Your task to perform on an android device: toggle priority inbox in the gmail app Image 0: 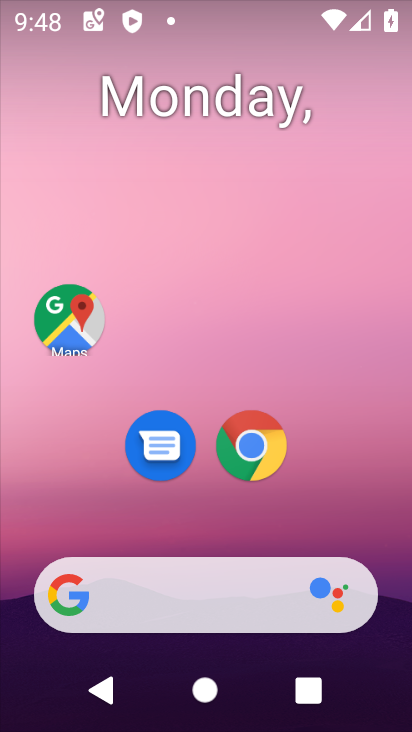
Step 0: drag from (74, 553) to (198, 148)
Your task to perform on an android device: toggle priority inbox in the gmail app Image 1: 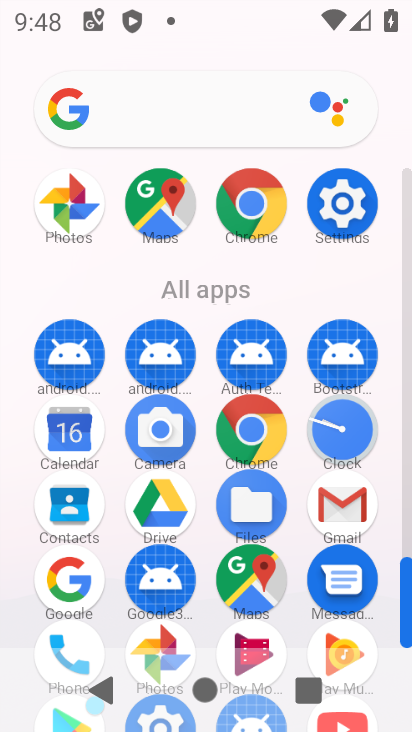
Step 1: drag from (195, 699) to (256, 431)
Your task to perform on an android device: toggle priority inbox in the gmail app Image 2: 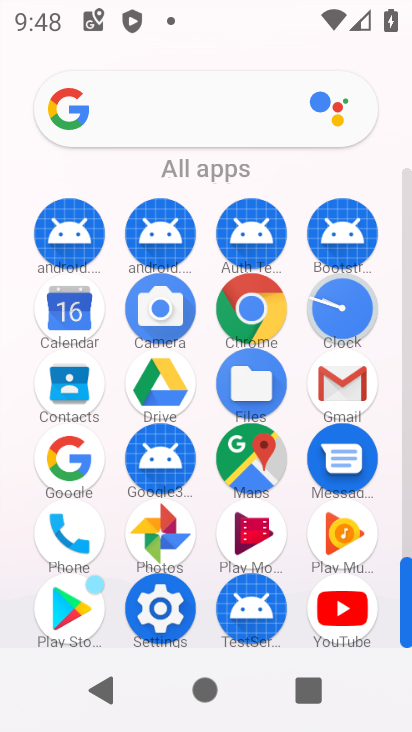
Step 2: click (349, 393)
Your task to perform on an android device: toggle priority inbox in the gmail app Image 3: 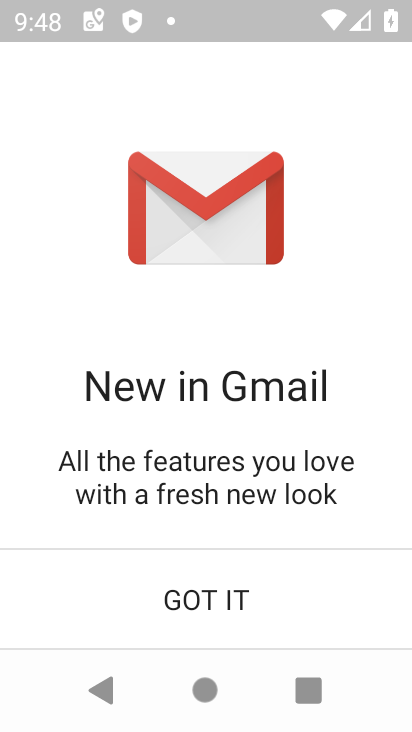
Step 3: click (253, 616)
Your task to perform on an android device: toggle priority inbox in the gmail app Image 4: 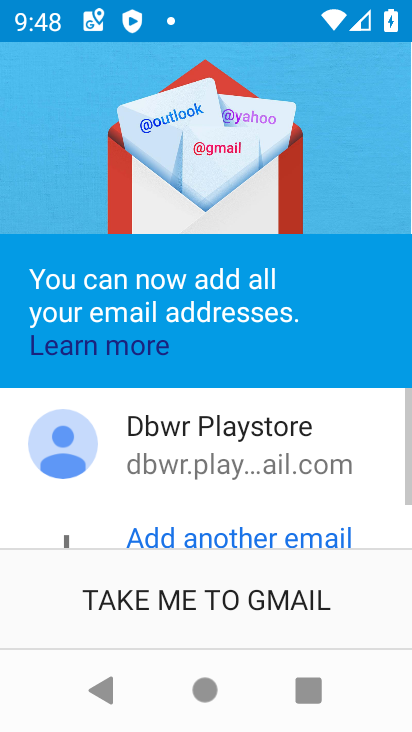
Step 4: click (253, 616)
Your task to perform on an android device: toggle priority inbox in the gmail app Image 5: 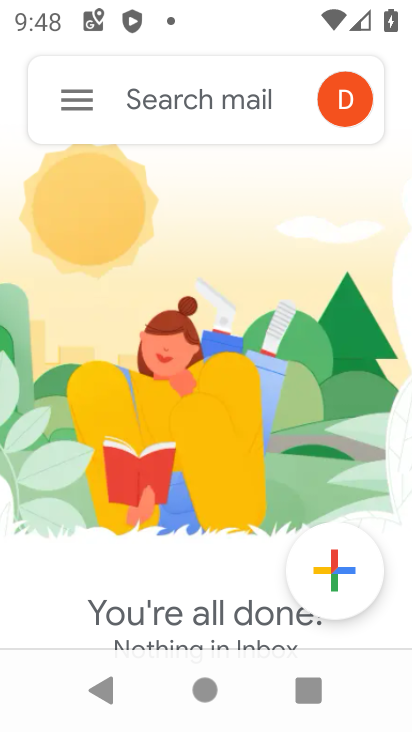
Step 5: click (82, 94)
Your task to perform on an android device: toggle priority inbox in the gmail app Image 6: 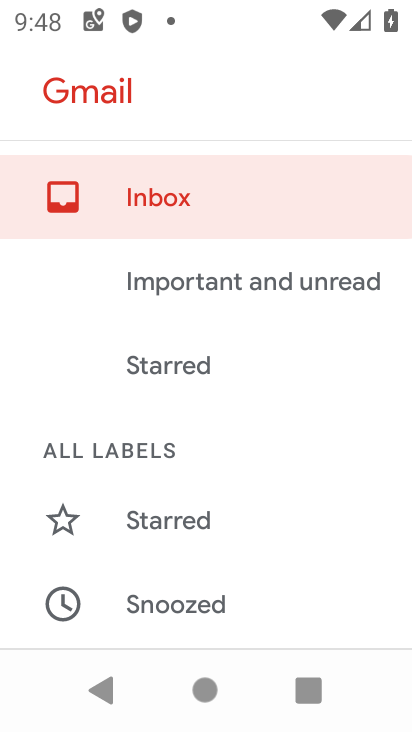
Step 6: drag from (158, 600) to (268, 168)
Your task to perform on an android device: toggle priority inbox in the gmail app Image 7: 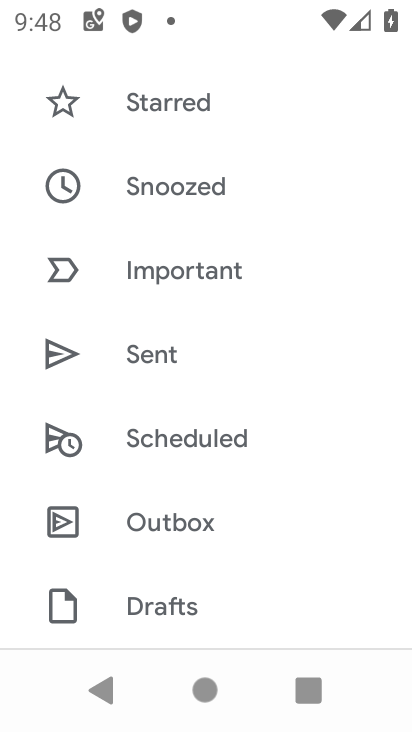
Step 7: drag from (132, 613) to (220, 279)
Your task to perform on an android device: toggle priority inbox in the gmail app Image 8: 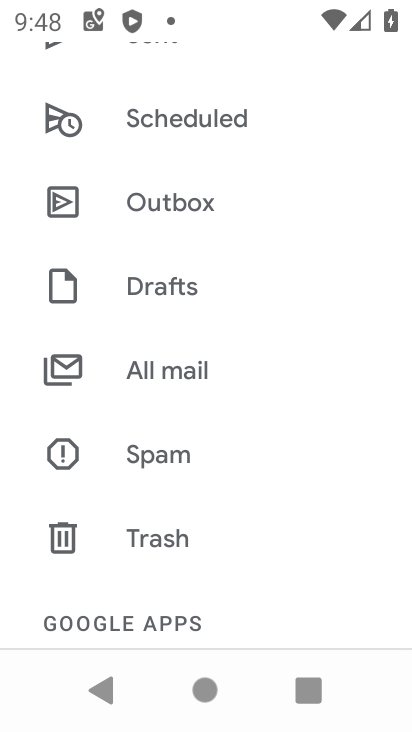
Step 8: drag from (170, 613) to (337, 261)
Your task to perform on an android device: toggle priority inbox in the gmail app Image 9: 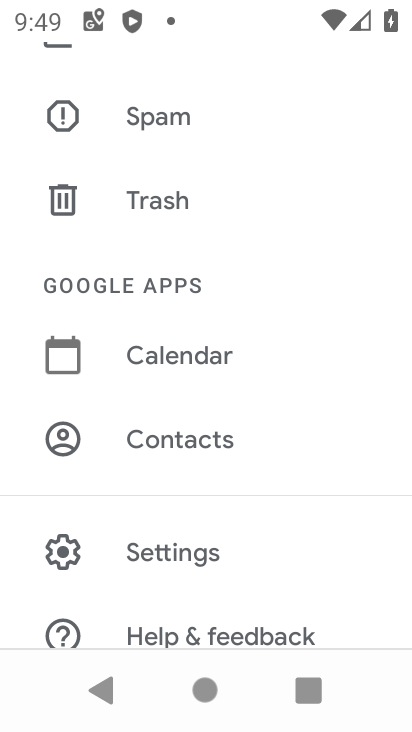
Step 9: click (220, 581)
Your task to perform on an android device: toggle priority inbox in the gmail app Image 10: 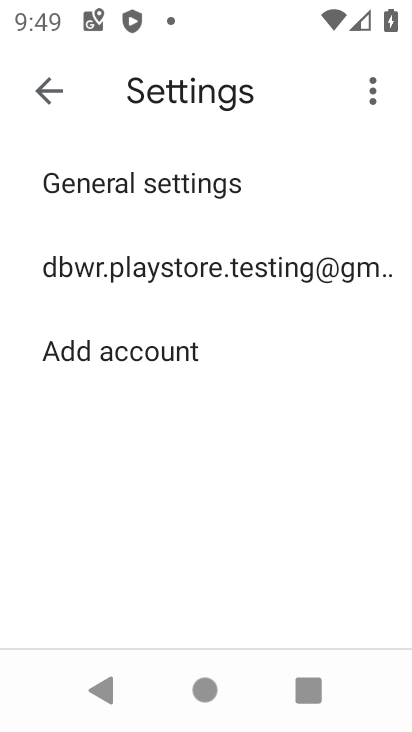
Step 10: click (250, 269)
Your task to perform on an android device: toggle priority inbox in the gmail app Image 11: 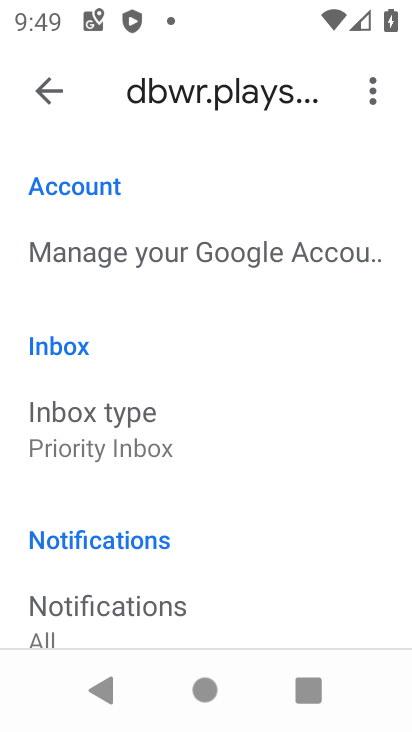
Step 11: click (131, 441)
Your task to perform on an android device: toggle priority inbox in the gmail app Image 12: 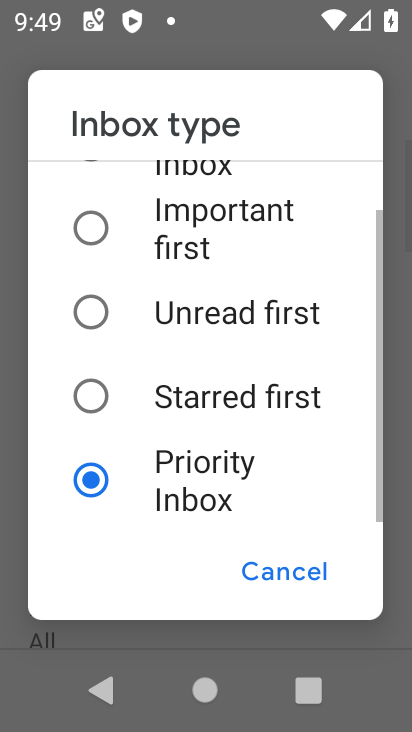
Step 12: drag from (151, 239) to (73, 523)
Your task to perform on an android device: toggle priority inbox in the gmail app Image 13: 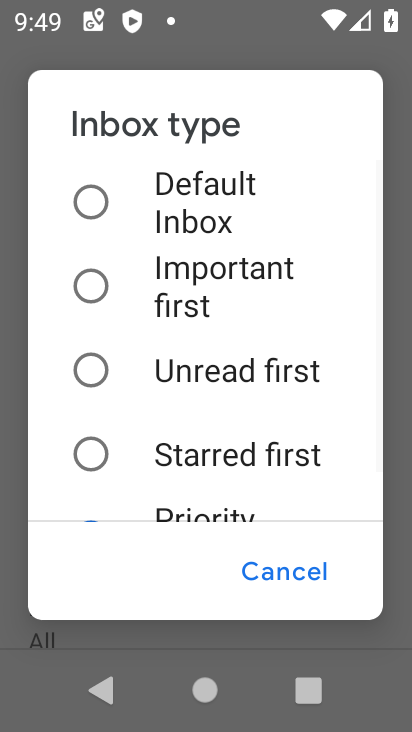
Step 13: click (82, 209)
Your task to perform on an android device: toggle priority inbox in the gmail app Image 14: 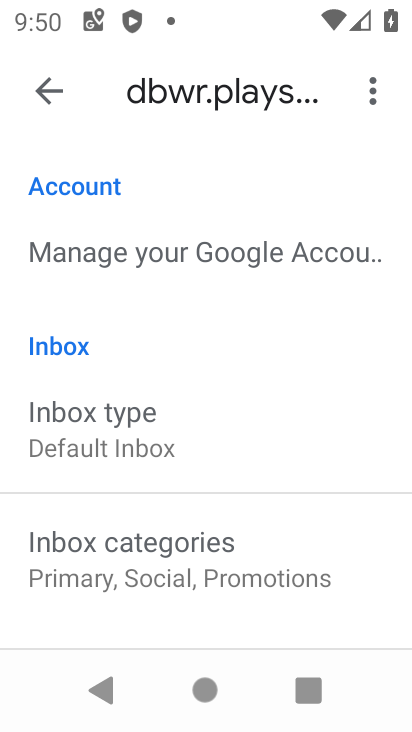
Step 14: task complete